Your task to perform on an android device: Check the weather Image 0: 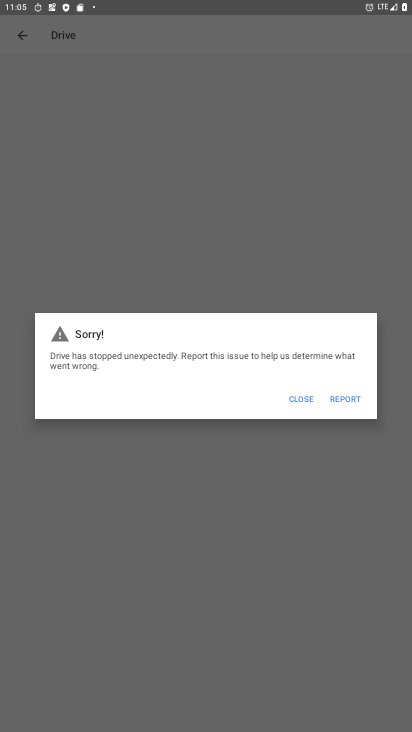
Step 0: press home button
Your task to perform on an android device: Check the weather Image 1: 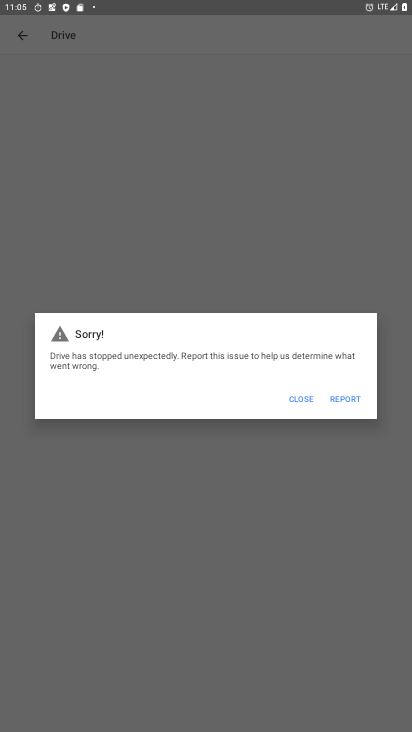
Step 1: press home button
Your task to perform on an android device: Check the weather Image 2: 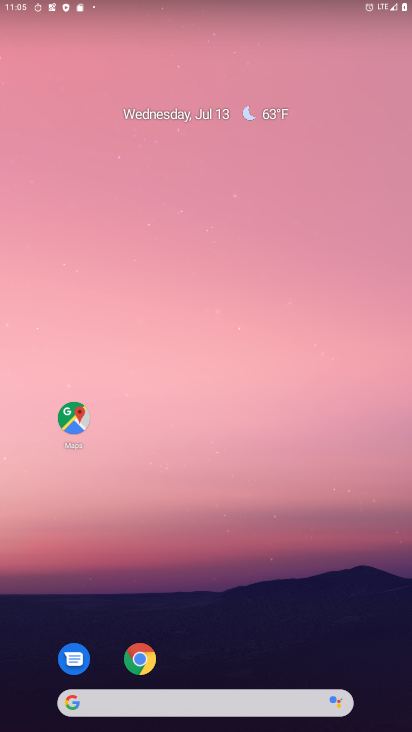
Step 2: drag from (238, 666) to (236, 102)
Your task to perform on an android device: Check the weather Image 3: 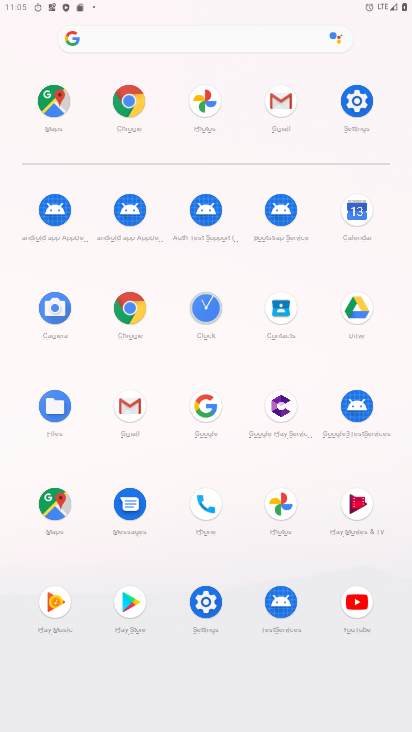
Step 3: click (133, 98)
Your task to perform on an android device: Check the weather Image 4: 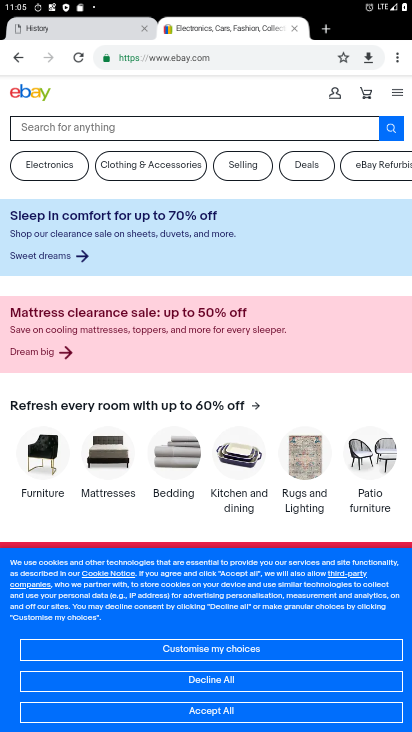
Step 4: click (219, 61)
Your task to perform on an android device: Check the weather Image 5: 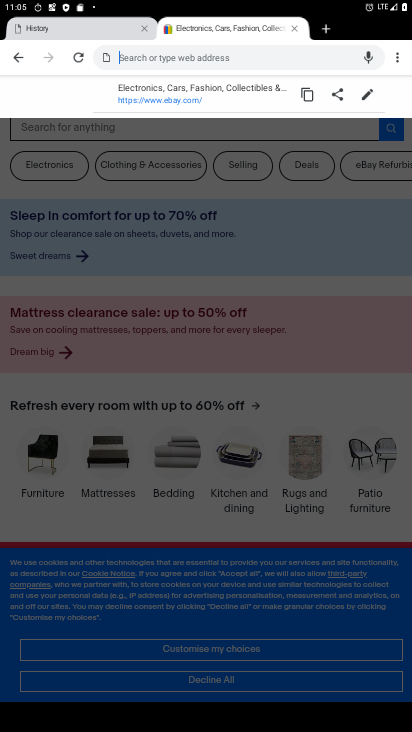
Step 5: type "weather"
Your task to perform on an android device: Check the weather Image 6: 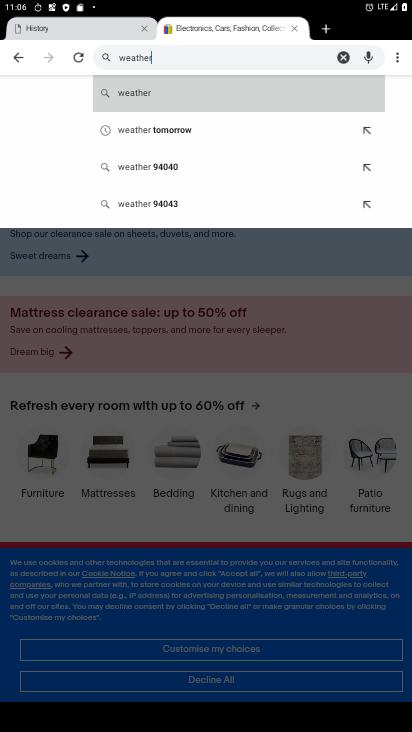
Step 6: click (136, 95)
Your task to perform on an android device: Check the weather Image 7: 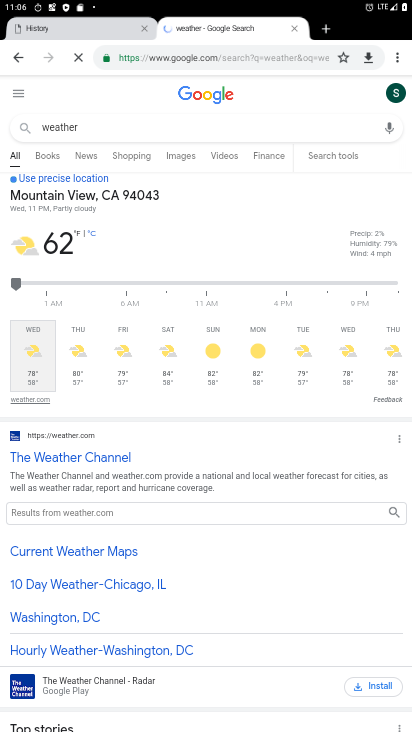
Step 7: task complete